Your task to perform on an android device: Toggle the flashlight Image 0: 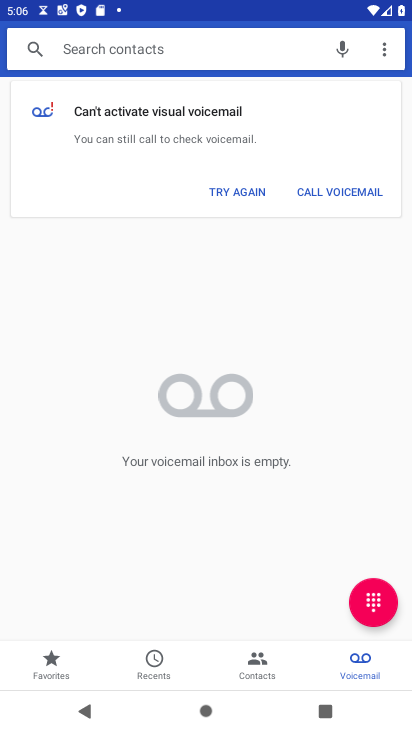
Step 0: press back button
Your task to perform on an android device: Toggle the flashlight Image 1: 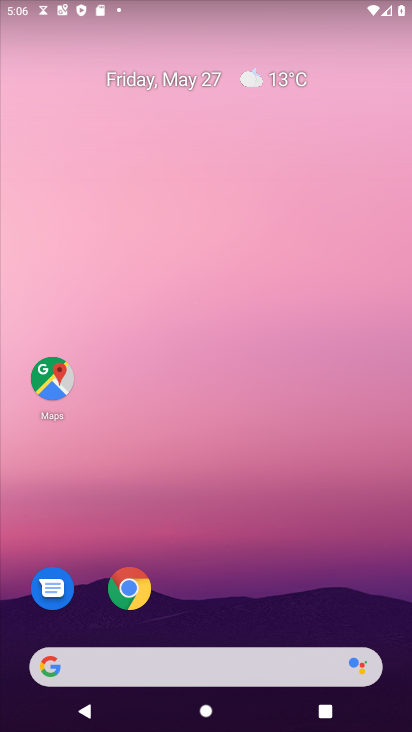
Step 1: drag from (186, 573) to (269, 50)
Your task to perform on an android device: Toggle the flashlight Image 2: 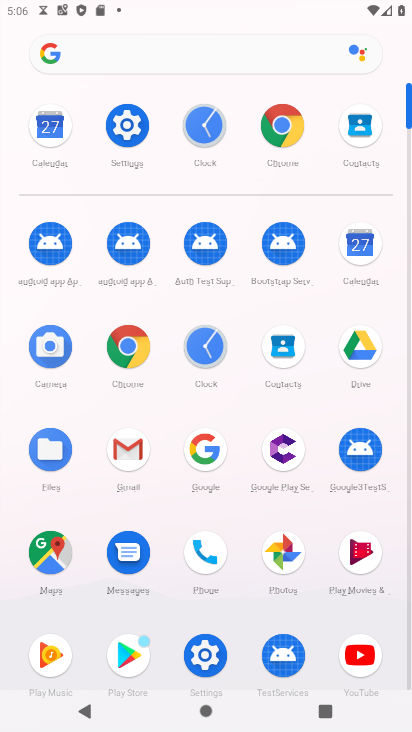
Step 2: click (129, 126)
Your task to perform on an android device: Toggle the flashlight Image 3: 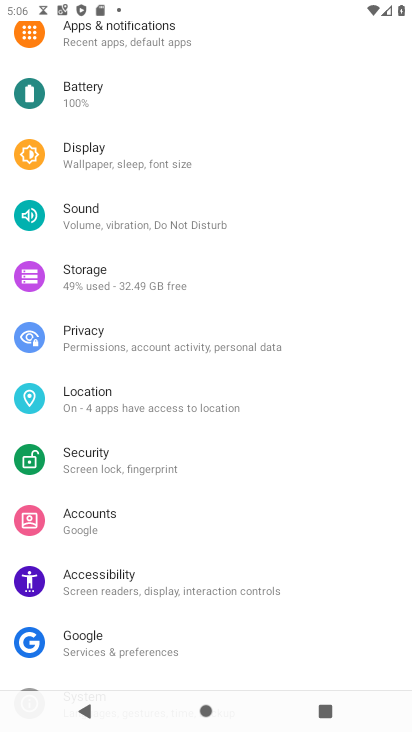
Step 3: drag from (145, 86) to (209, 583)
Your task to perform on an android device: Toggle the flashlight Image 4: 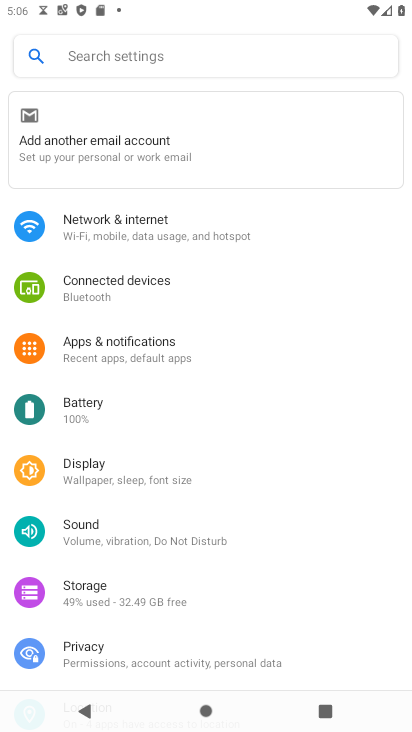
Step 4: click (132, 54)
Your task to perform on an android device: Toggle the flashlight Image 5: 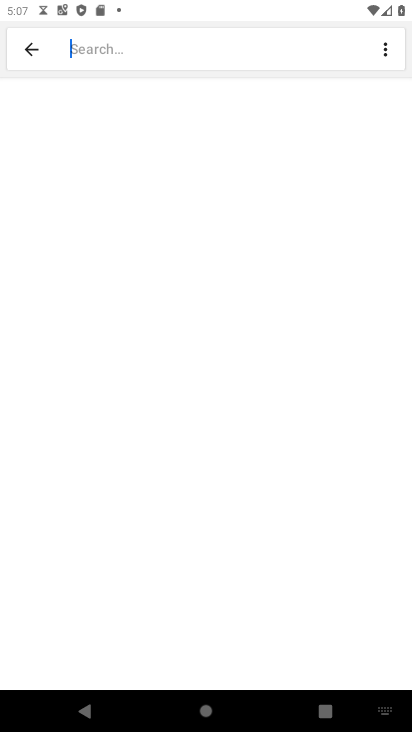
Step 5: type "flashlight"
Your task to perform on an android device: Toggle the flashlight Image 6: 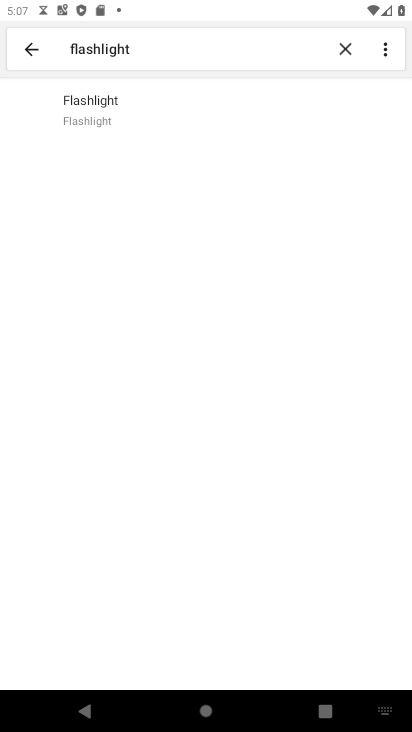
Step 6: click (94, 103)
Your task to perform on an android device: Toggle the flashlight Image 7: 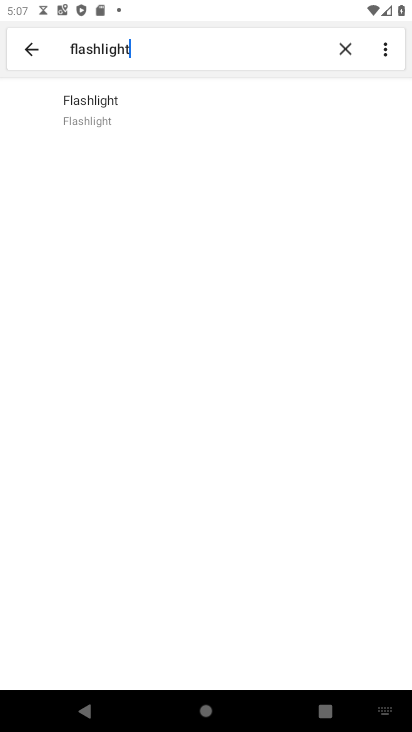
Step 7: click (116, 107)
Your task to perform on an android device: Toggle the flashlight Image 8: 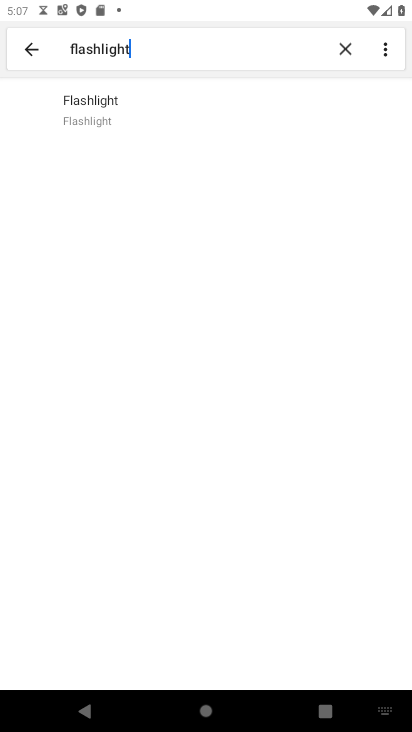
Step 8: task complete